Your task to perform on an android device: refresh tabs in the chrome app Image 0: 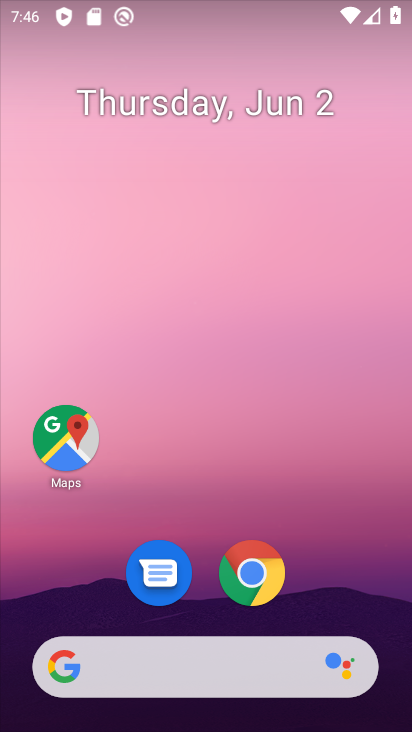
Step 0: drag from (351, 629) to (139, 11)
Your task to perform on an android device: refresh tabs in the chrome app Image 1: 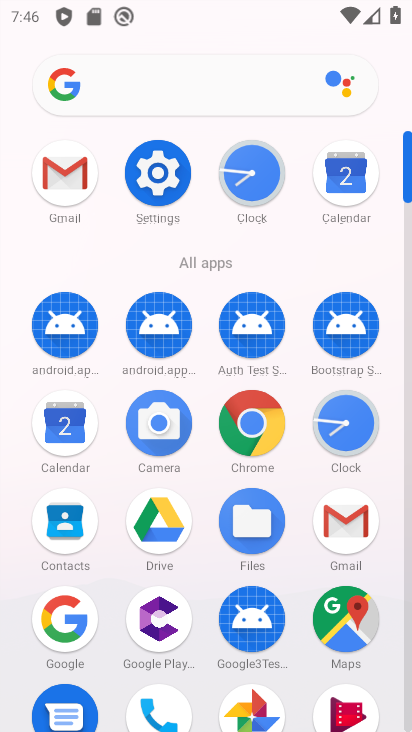
Step 1: click (248, 413)
Your task to perform on an android device: refresh tabs in the chrome app Image 2: 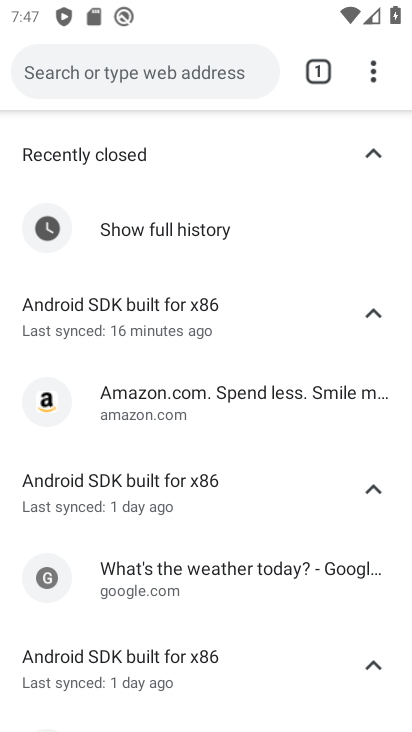
Step 2: click (382, 90)
Your task to perform on an android device: refresh tabs in the chrome app Image 3: 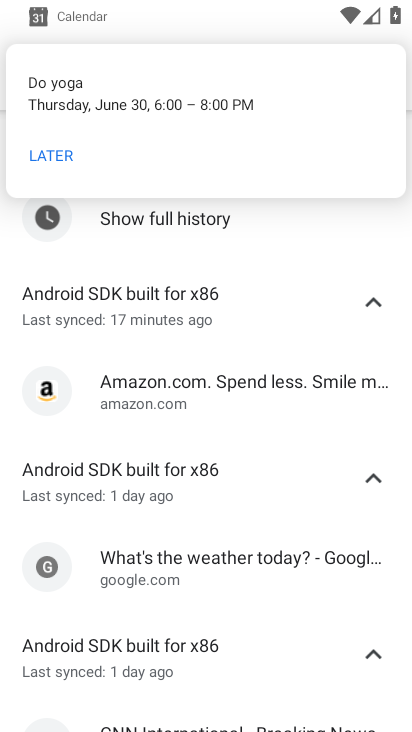
Step 3: task complete